Your task to perform on an android device: Open calendar and show me the first week of next month Image 0: 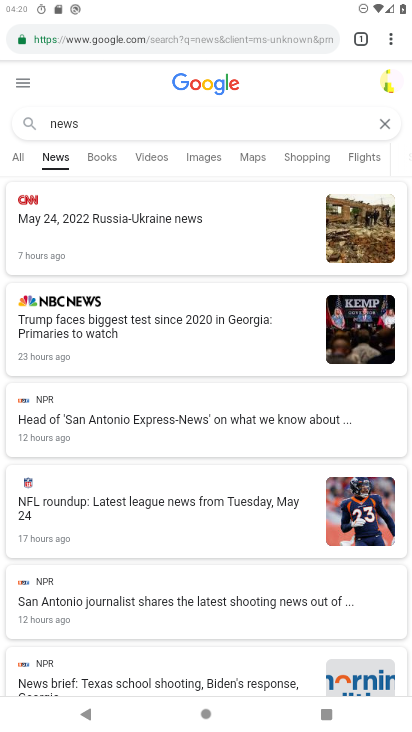
Step 0: press home button
Your task to perform on an android device: Open calendar and show me the first week of next month Image 1: 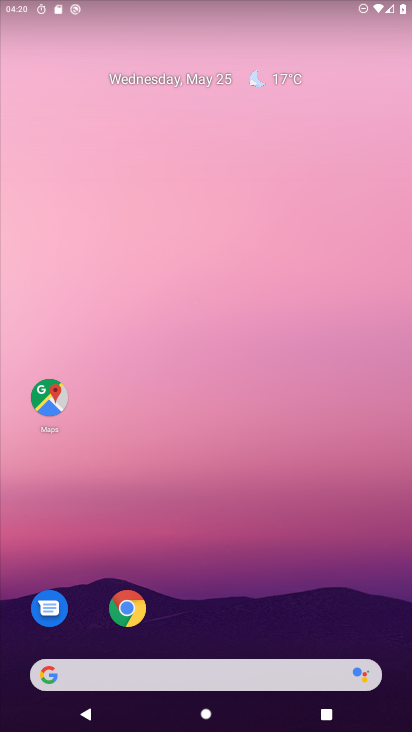
Step 1: drag from (247, 588) to (246, 94)
Your task to perform on an android device: Open calendar and show me the first week of next month Image 2: 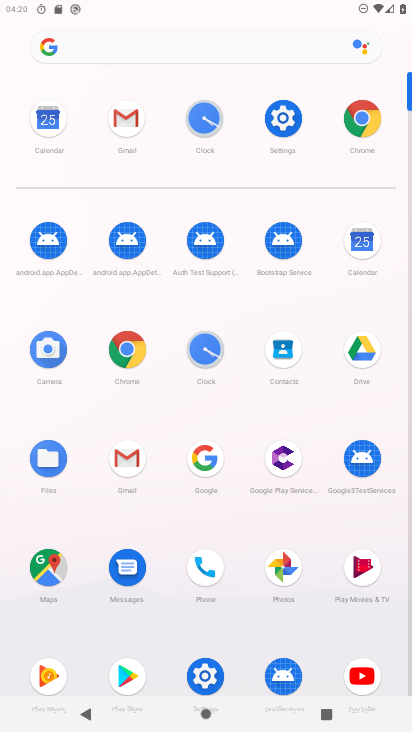
Step 2: click (352, 240)
Your task to perform on an android device: Open calendar and show me the first week of next month Image 3: 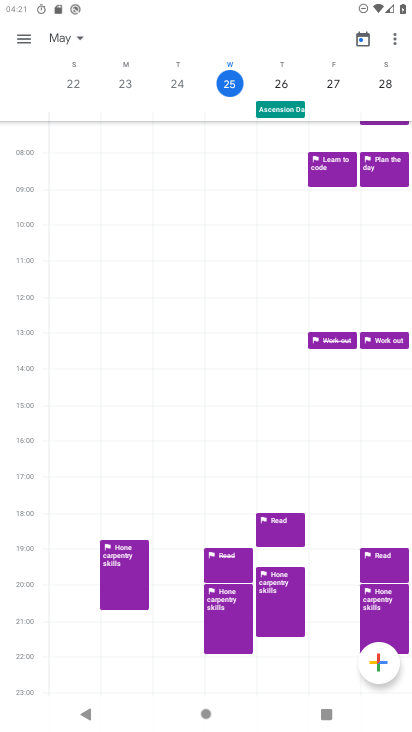
Step 3: click (61, 39)
Your task to perform on an android device: Open calendar and show me the first week of next month Image 4: 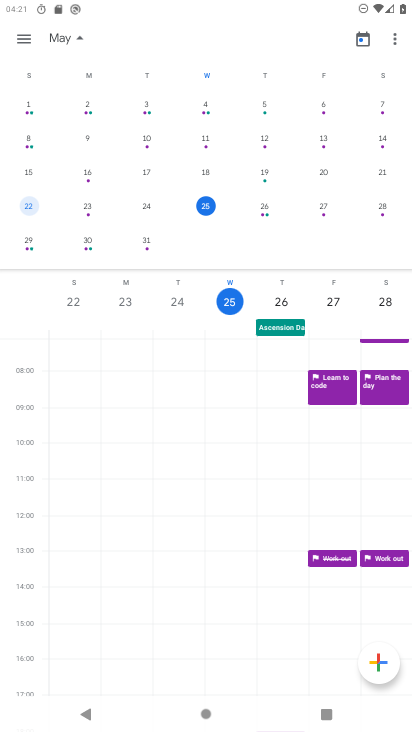
Step 4: drag from (389, 179) to (38, 144)
Your task to perform on an android device: Open calendar and show me the first week of next month Image 5: 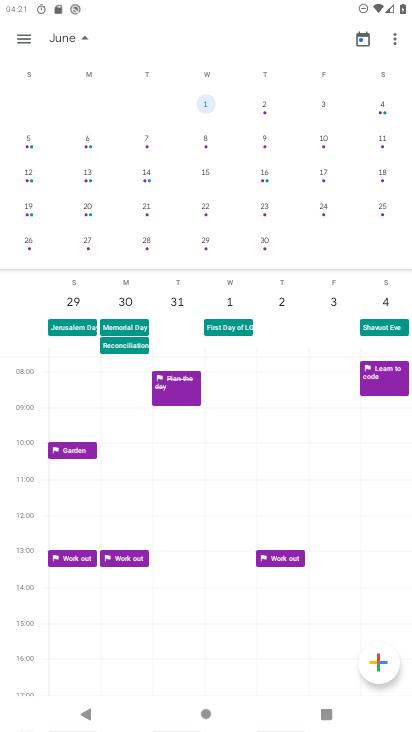
Step 5: click (32, 139)
Your task to perform on an android device: Open calendar and show me the first week of next month Image 6: 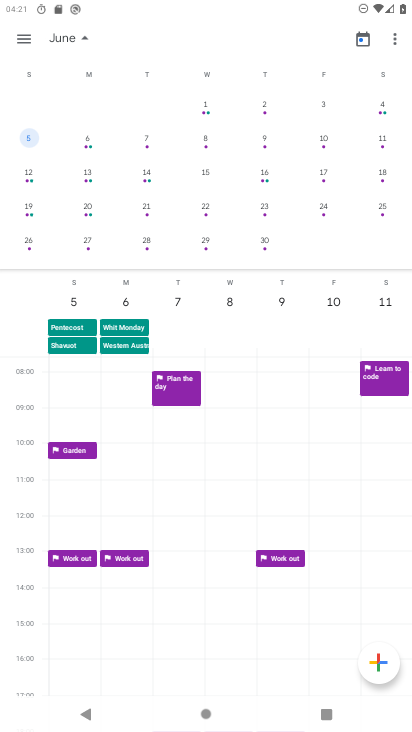
Step 6: task complete